Your task to perform on an android device: Is it going to rain this weekend? Image 0: 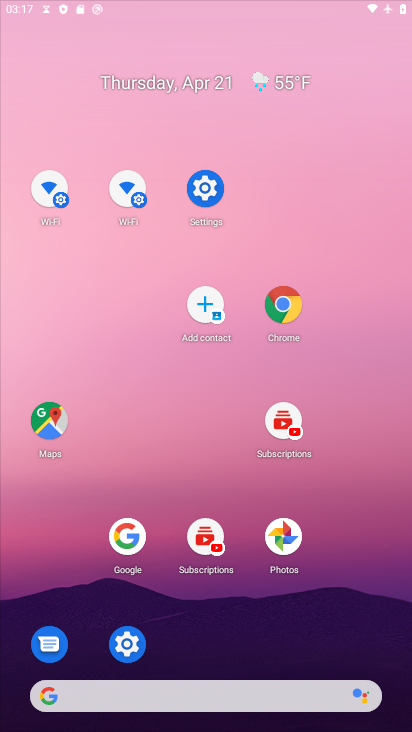
Step 0: drag from (189, 611) to (80, 192)
Your task to perform on an android device: Is it going to rain this weekend? Image 1: 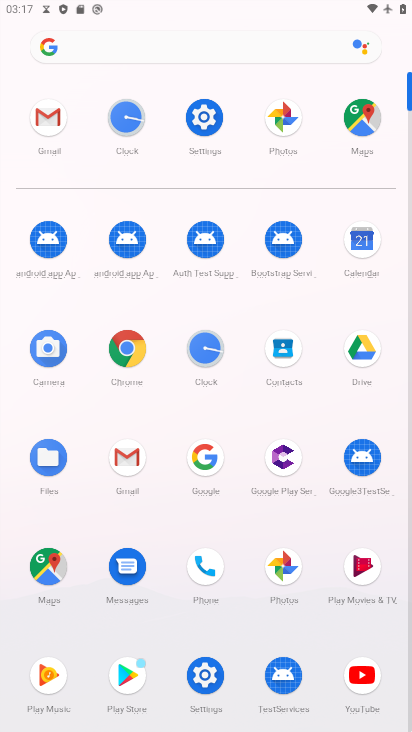
Step 1: press home button
Your task to perform on an android device: Is it going to rain this weekend? Image 2: 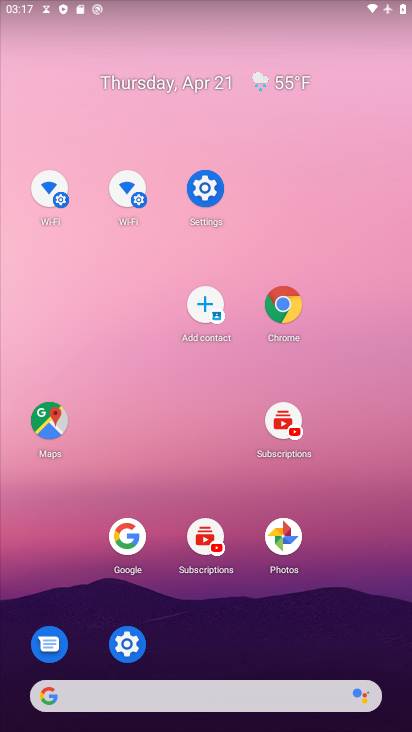
Step 2: drag from (111, 236) to (411, 419)
Your task to perform on an android device: Is it going to rain this weekend? Image 3: 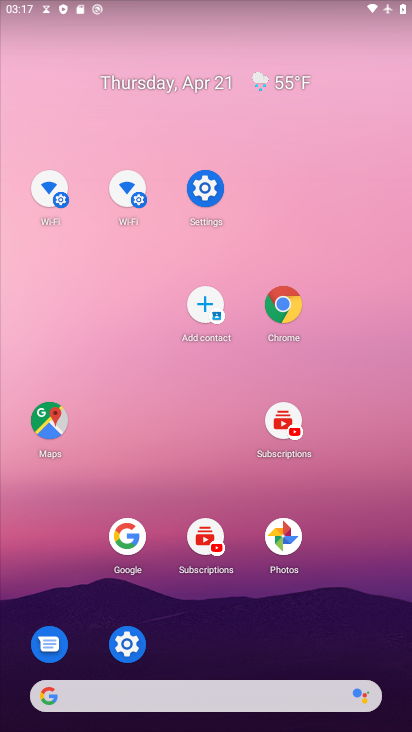
Step 3: drag from (269, 278) to (409, 349)
Your task to perform on an android device: Is it going to rain this weekend? Image 4: 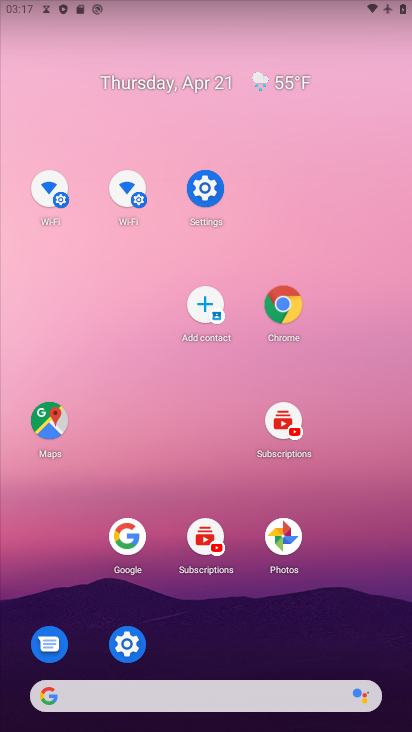
Step 4: drag from (5, 210) to (338, 302)
Your task to perform on an android device: Is it going to rain this weekend? Image 5: 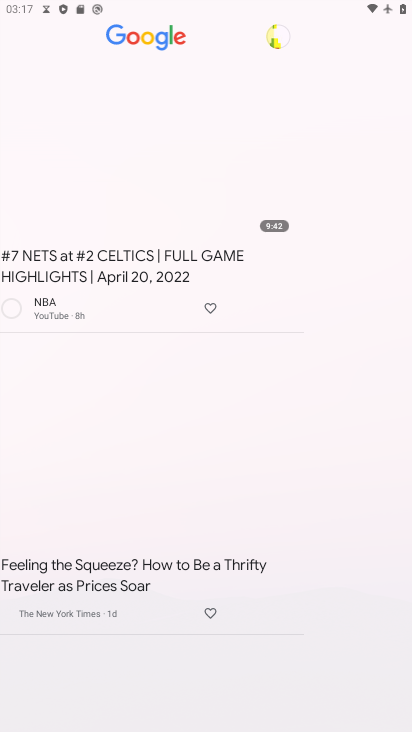
Step 5: click (321, 307)
Your task to perform on an android device: Is it going to rain this weekend? Image 6: 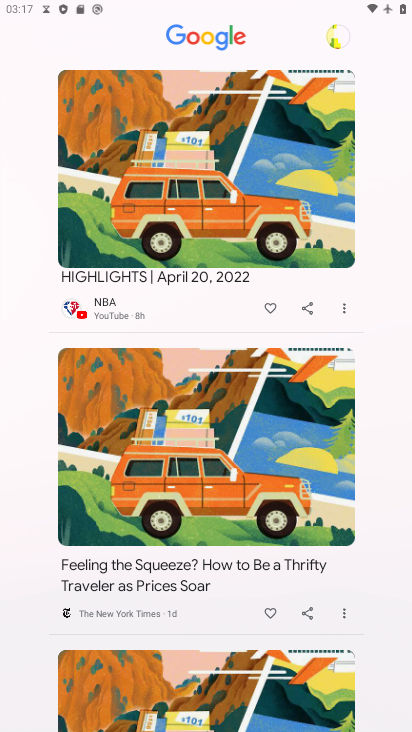
Step 6: drag from (301, 543) to (176, 492)
Your task to perform on an android device: Is it going to rain this weekend? Image 7: 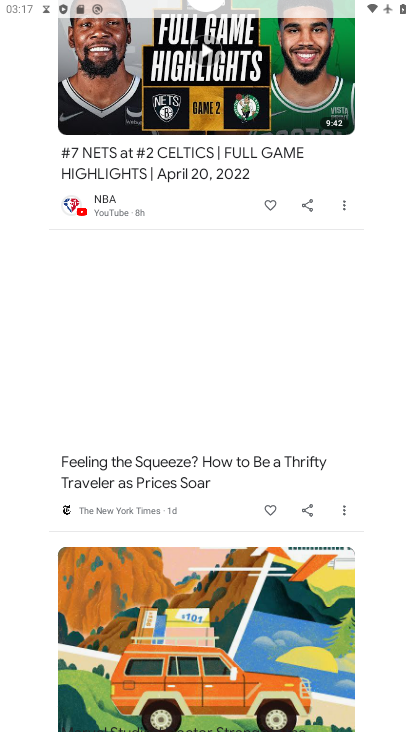
Step 7: drag from (101, 76) to (286, 578)
Your task to perform on an android device: Is it going to rain this weekend? Image 8: 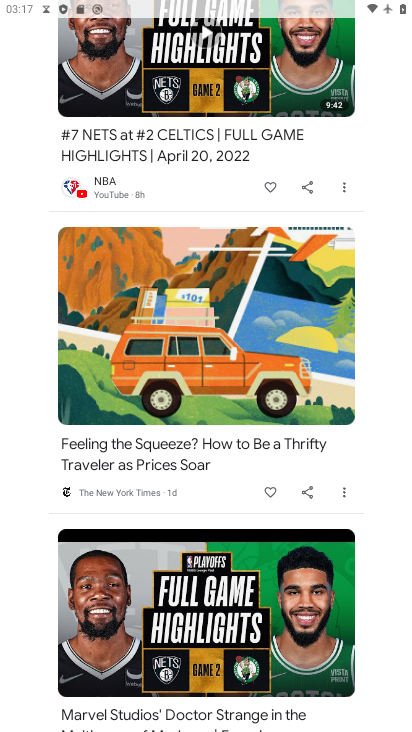
Step 8: press home button
Your task to perform on an android device: Is it going to rain this weekend? Image 9: 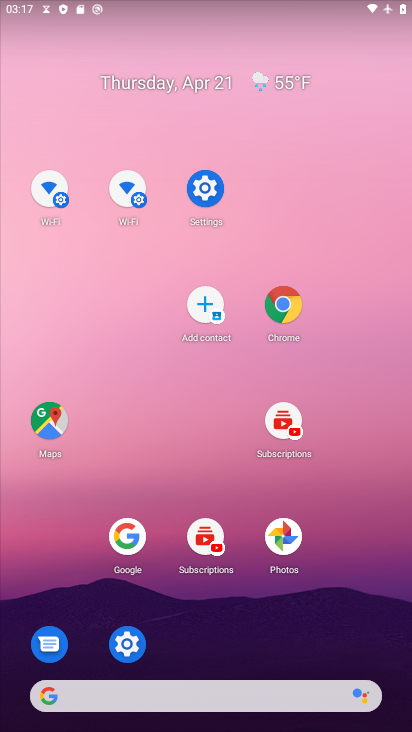
Step 9: click (253, 80)
Your task to perform on an android device: Is it going to rain this weekend? Image 10: 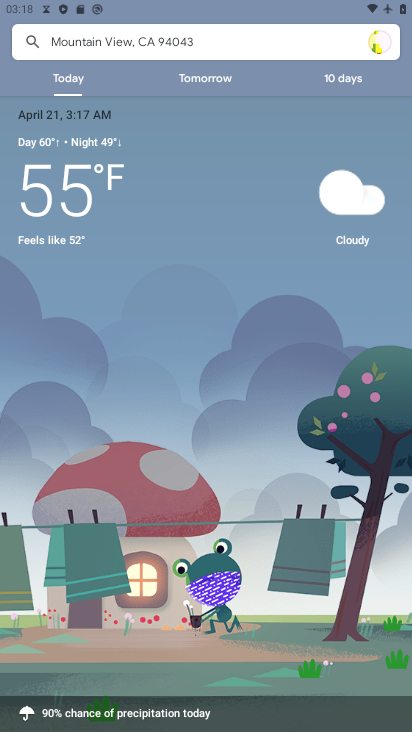
Step 10: drag from (202, 524) to (177, 120)
Your task to perform on an android device: Is it going to rain this weekend? Image 11: 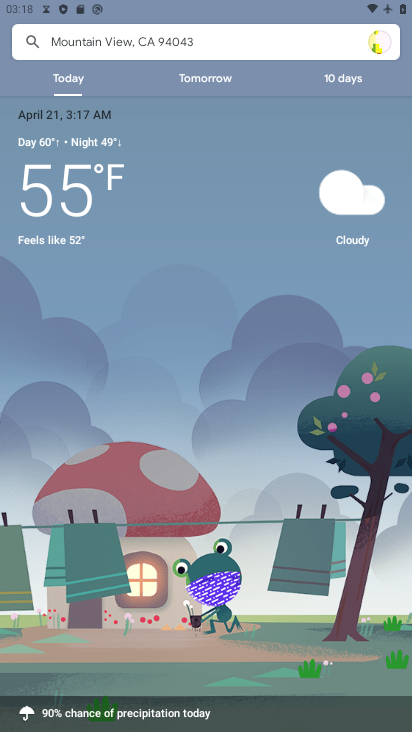
Step 11: drag from (175, 257) to (174, 133)
Your task to perform on an android device: Is it going to rain this weekend? Image 12: 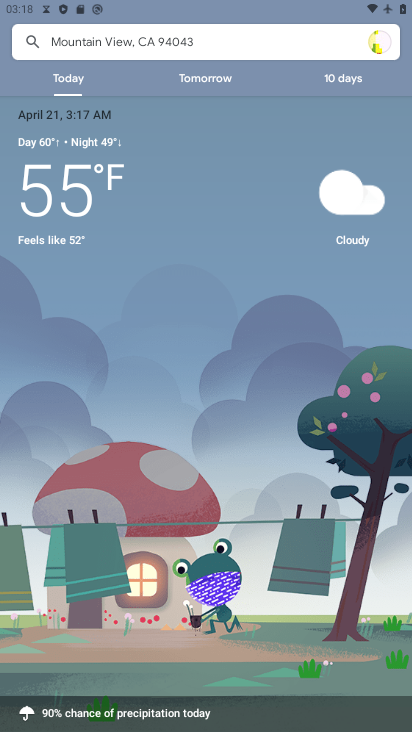
Step 12: drag from (181, 532) to (105, 36)
Your task to perform on an android device: Is it going to rain this weekend? Image 13: 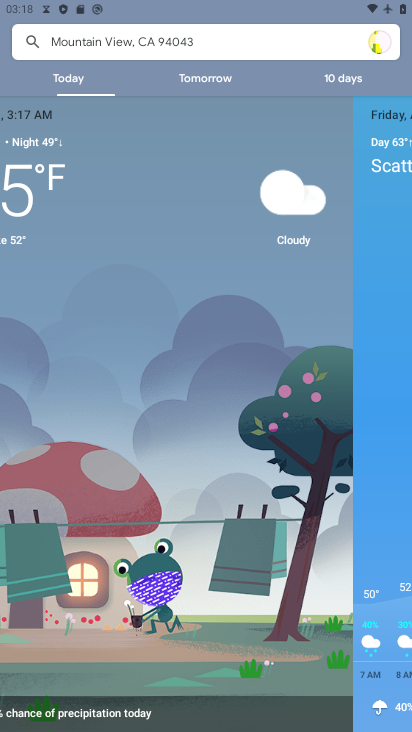
Step 13: drag from (227, 571) to (166, 127)
Your task to perform on an android device: Is it going to rain this weekend? Image 14: 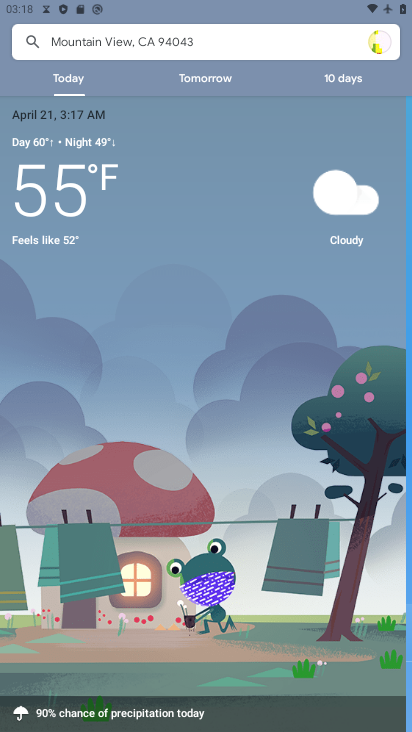
Step 14: drag from (217, 535) to (197, 84)
Your task to perform on an android device: Is it going to rain this weekend? Image 15: 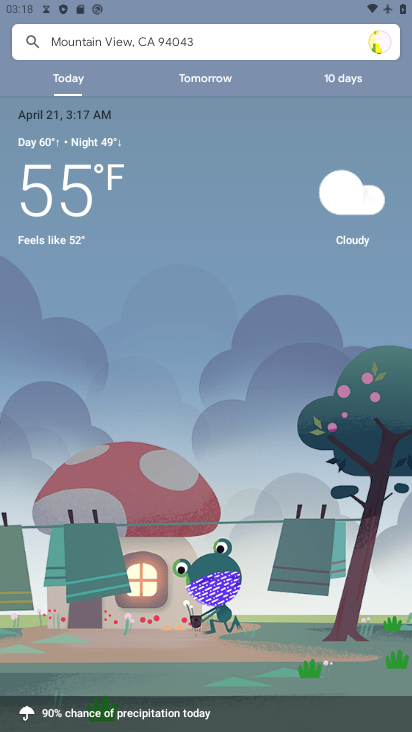
Step 15: drag from (152, 537) to (235, 60)
Your task to perform on an android device: Is it going to rain this weekend? Image 16: 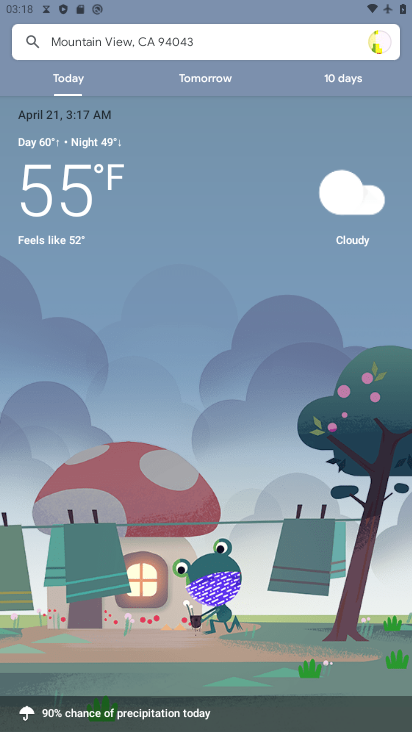
Step 16: drag from (154, 528) to (107, 144)
Your task to perform on an android device: Is it going to rain this weekend? Image 17: 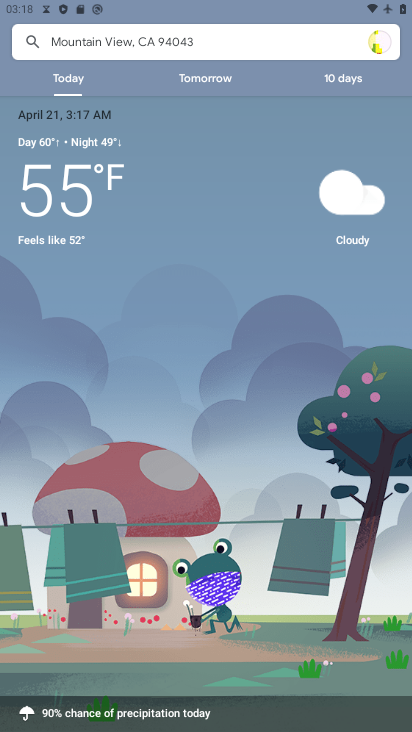
Step 17: drag from (180, 311) to (141, 5)
Your task to perform on an android device: Is it going to rain this weekend? Image 18: 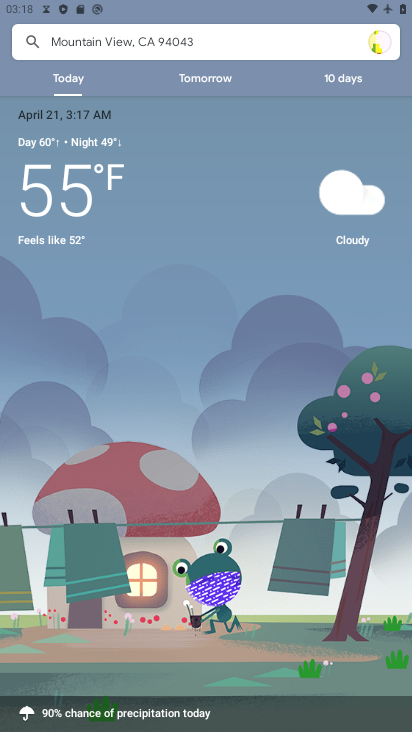
Step 18: drag from (116, 187) to (102, 97)
Your task to perform on an android device: Is it going to rain this weekend? Image 19: 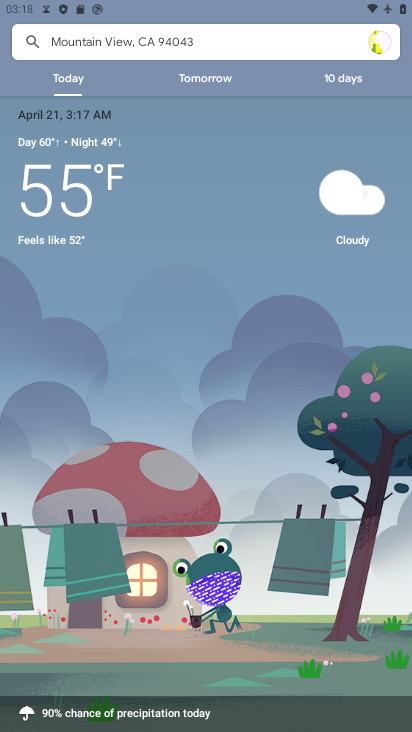
Step 19: drag from (101, 212) to (99, 171)
Your task to perform on an android device: Is it going to rain this weekend? Image 20: 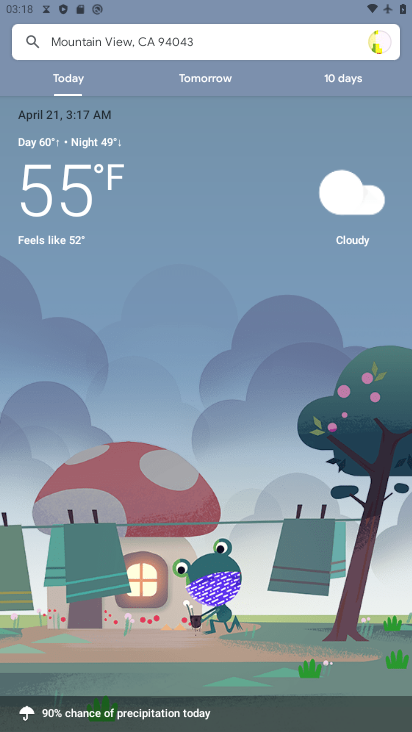
Step 20: drag from (165, 341) to (23, 54)
Your task to perform on an android device: Is it going to rain this weekend? Image 21: 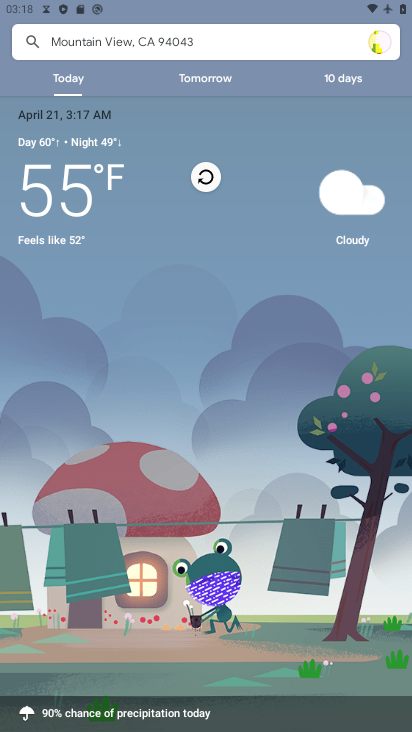
Step 21: click (134, 113)
Your task to perform on an android device: Is it going to rain this weekend? Image 22: 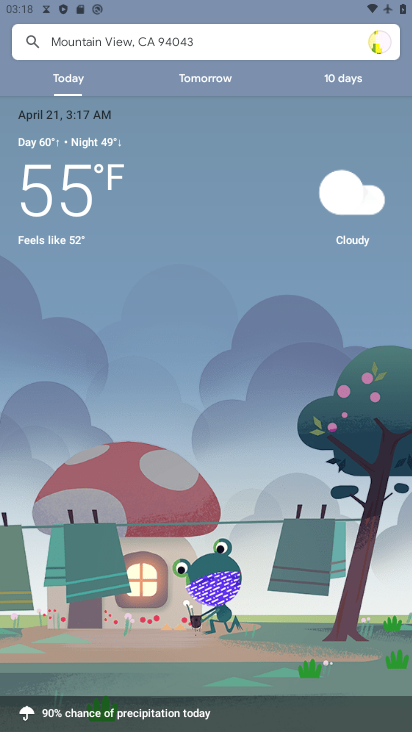
Step 22: task complete